Your task to perform on an android device: refresh tabs in the chrome app Image 0: 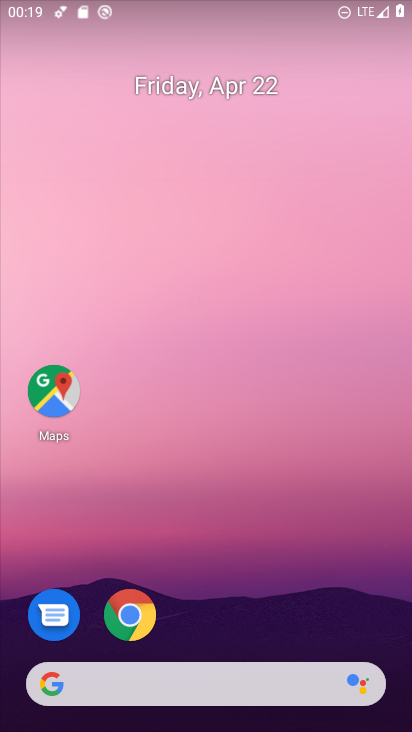
Step 0: drag from (218, 645) to (236, 37)
Your task to perform on an android device: refresh tabs in the chrome app Image 1: 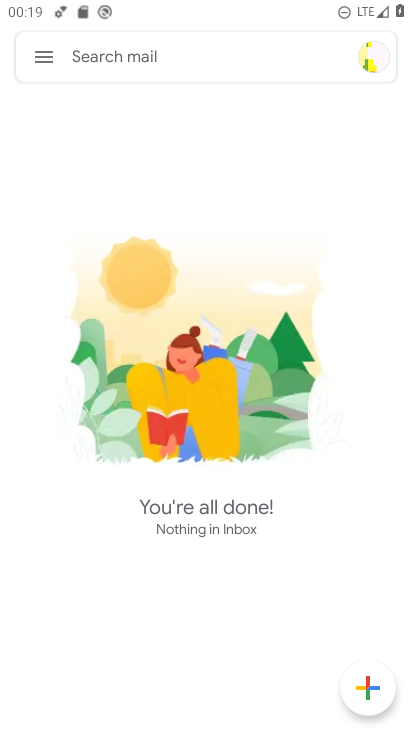
Step 1: press home button
Your task to perform on an android device: refresh tabs in the chrome app Image 2: 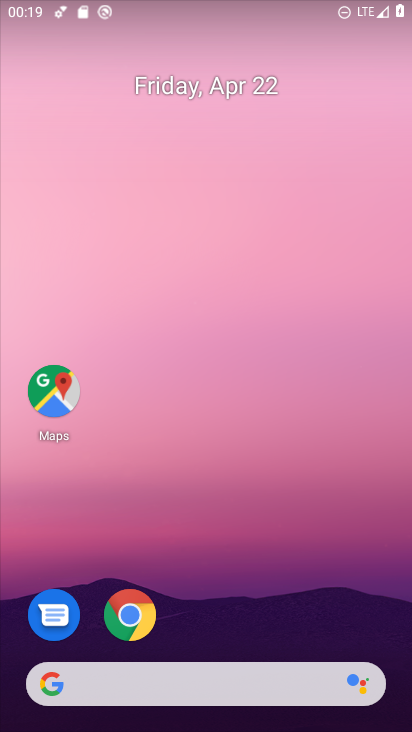
Step 2: click (128, 608)
Your task to perform on an android device: refresh tabs in the chrome app Image 3: 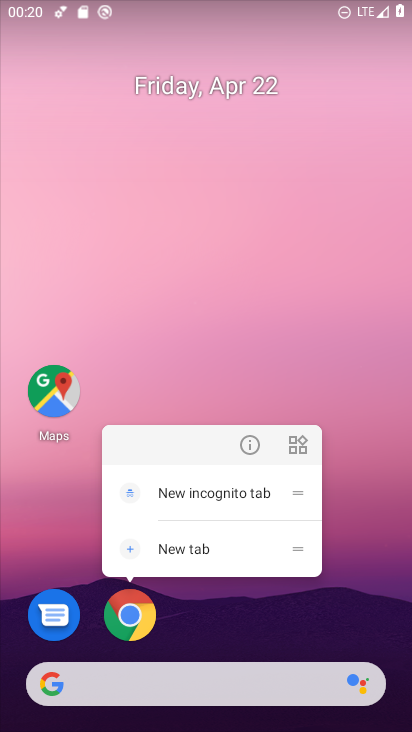
Step 3: click (194, 625)
Your task to perform on an android device: refresh tabs in the chrome app Image 4: 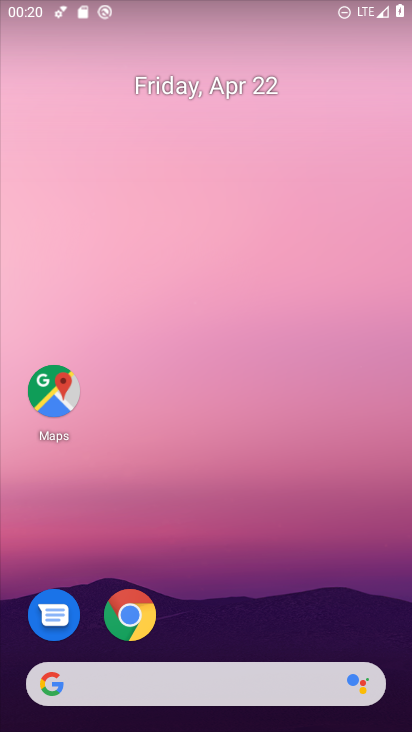
Step 4: click (127, 610)
Your task to perform on an android device: refresh tabs in the chrome app Image 5: 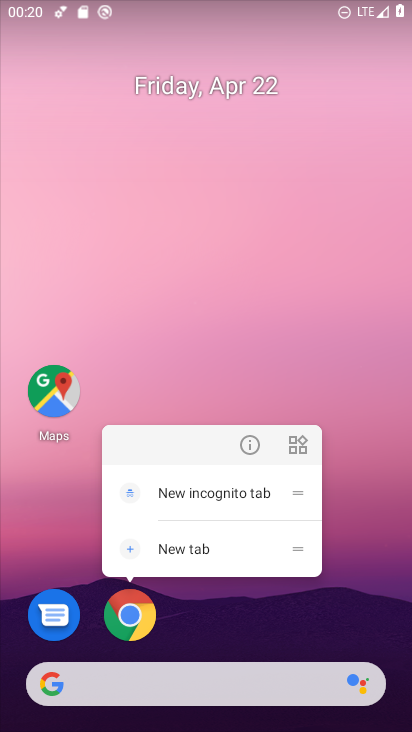
Step 5: click (208, 621)
Your task to perform on an android device: refresh tabs in the chrome app Image 6: 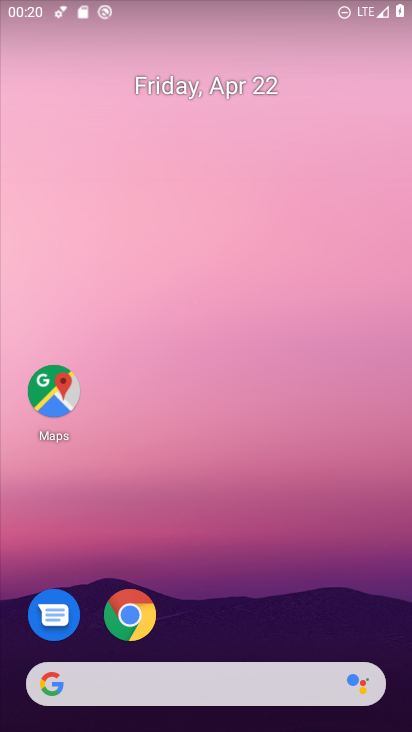
Step 6: drag from (262, 637) to (257, 27)
Your task to perform on an android device: refresh tabs in the chrome app Image 7: 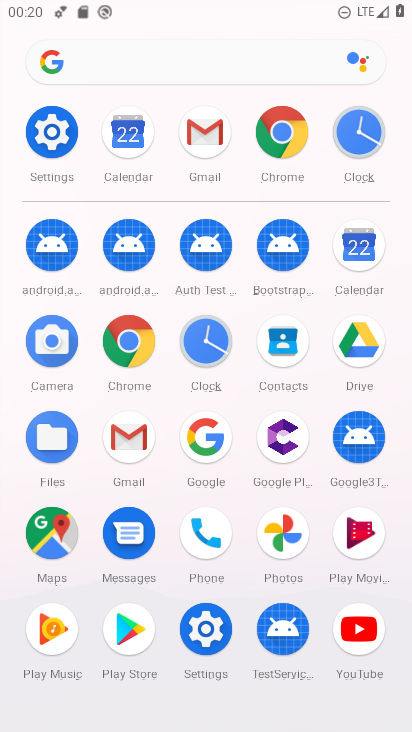
Step 7: click (125, 334)
Your task to perform on an android device: refresh tabs in the chrome app Image 8: 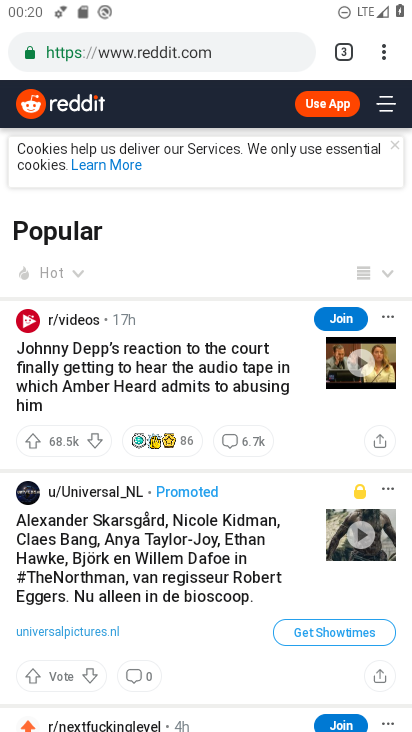
Step 8: click (379, 50)
Your task to perform on an android device: refresh tabs in the chrome app Image 9: 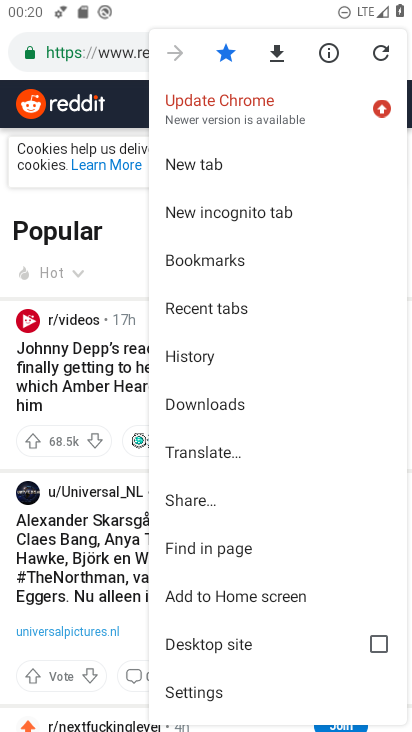
Step 9: click (379, 50)
Your task to perform on an android device: refresh tabs in the chrome app Image 10: 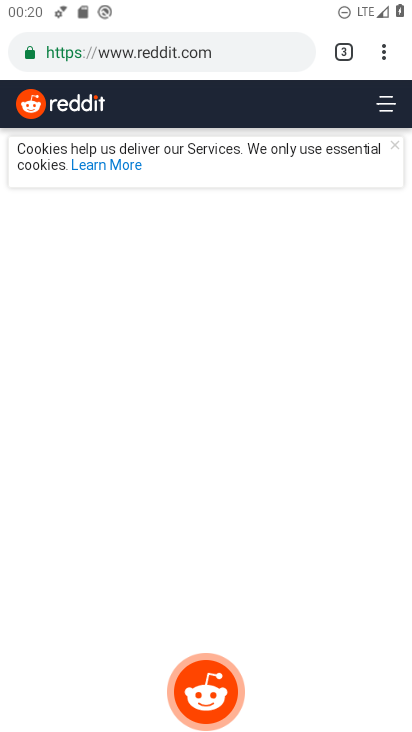
Step 10: task complete